Your task to perform on an android device: Search for "bose quietcomfort 35" on bestbuy, select the first entry, and add it to the cart. Image 0: 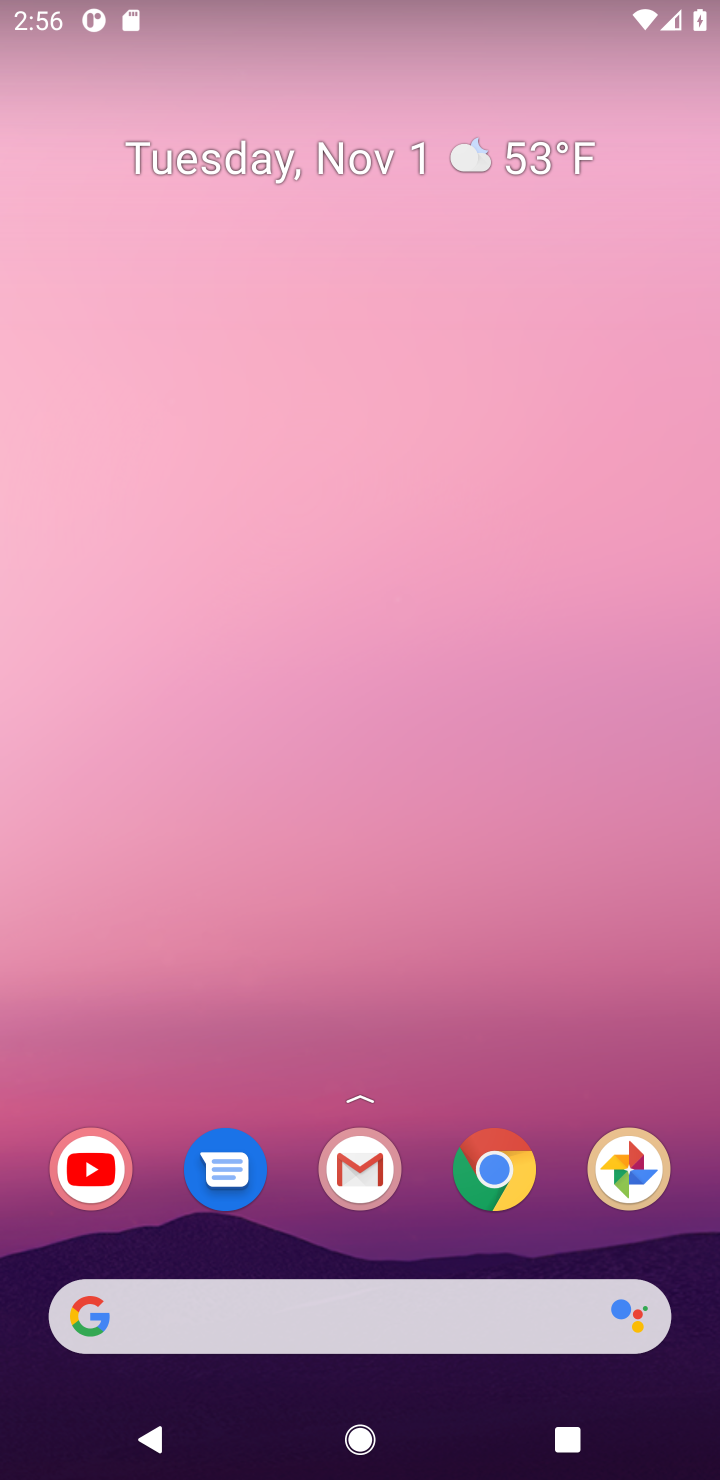
Step 0: press home button
Your task to perform on an android device: Search for "bose quietcomfort 35" on bestbuy, select the first entry, and add it to the cart. Image 1: 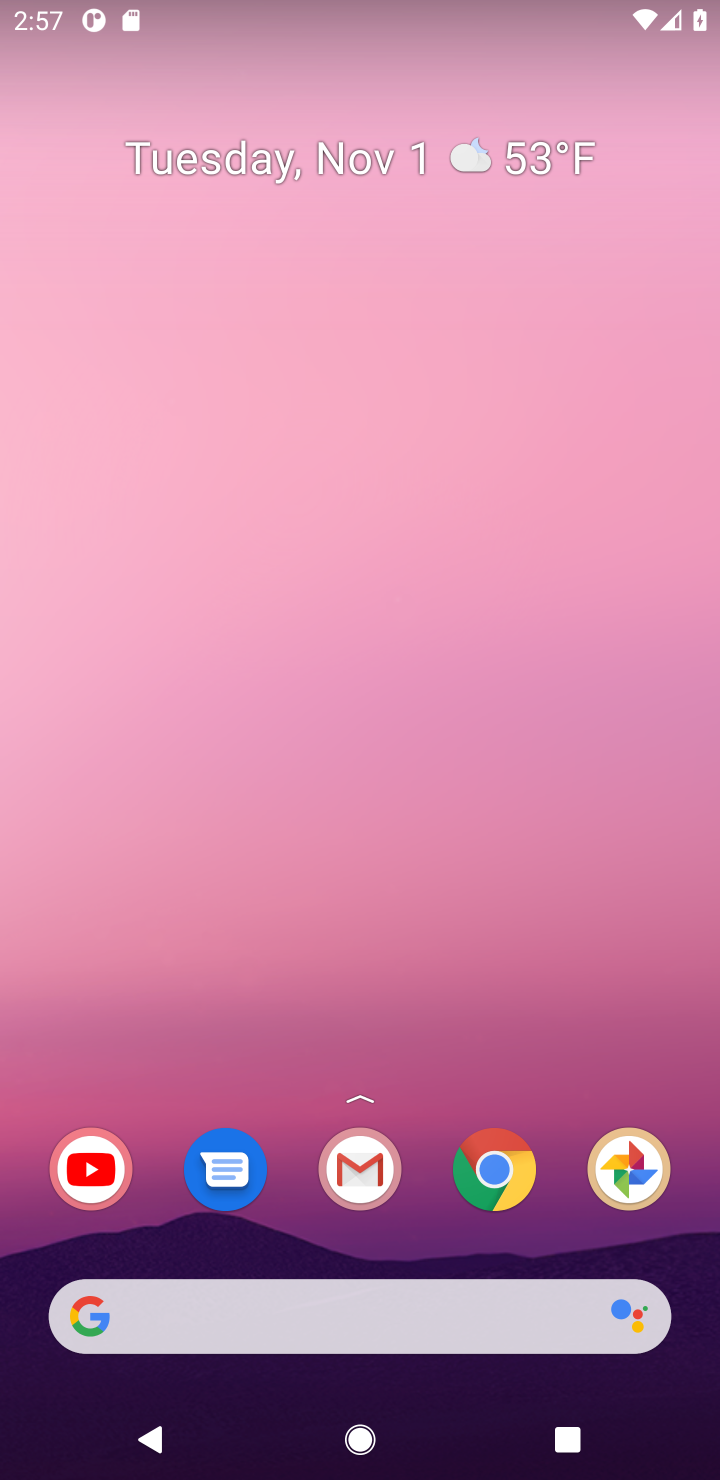
Step 1: drag from (401, 1018) to (519, 68)
Your task to perform on an android device: Search for "bose quietcomfort 35" on bestbuy, select the first entry, and add it to the cart. Image 2: 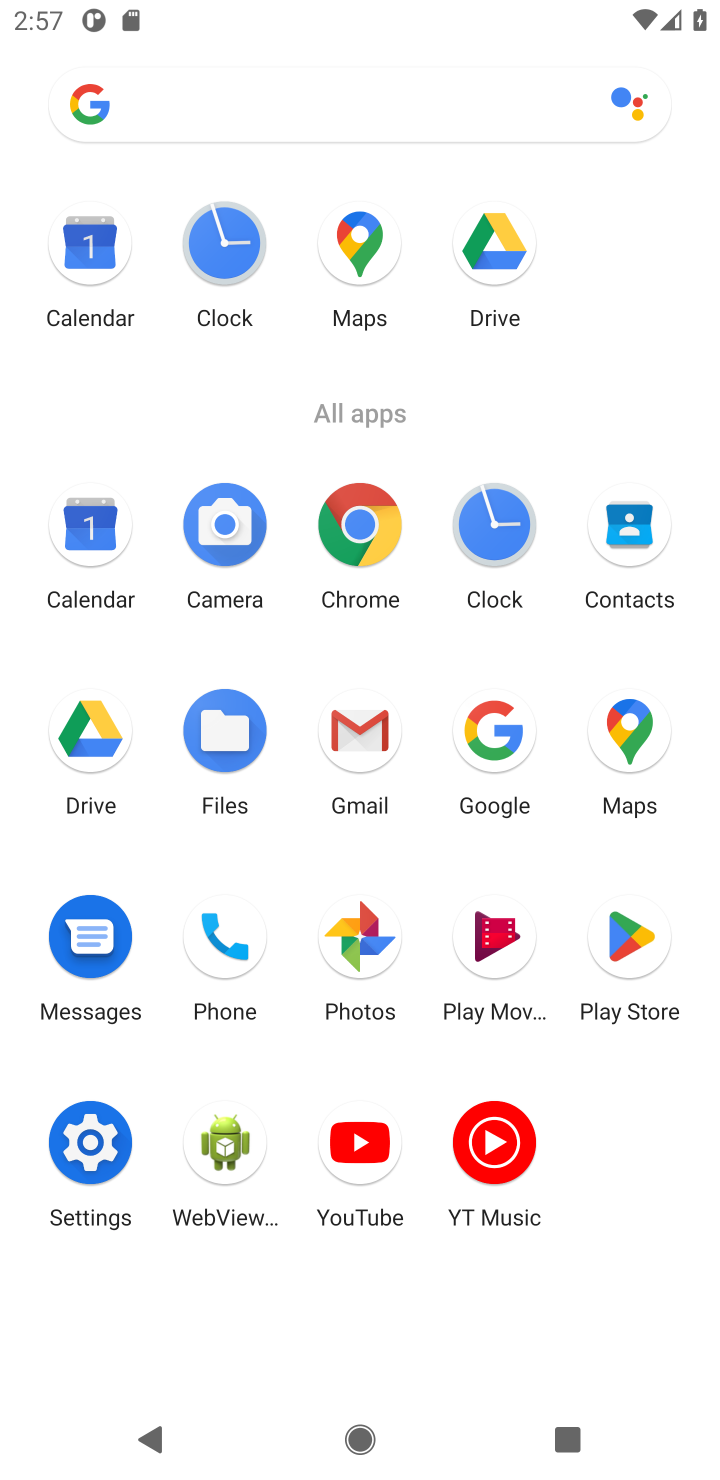
Step 2: click (347, 516)
Your task to perform on an android device: Search for "bose quietcomfort 35" on bestbuy, select the first entry, and add it to the cart. Image 3: 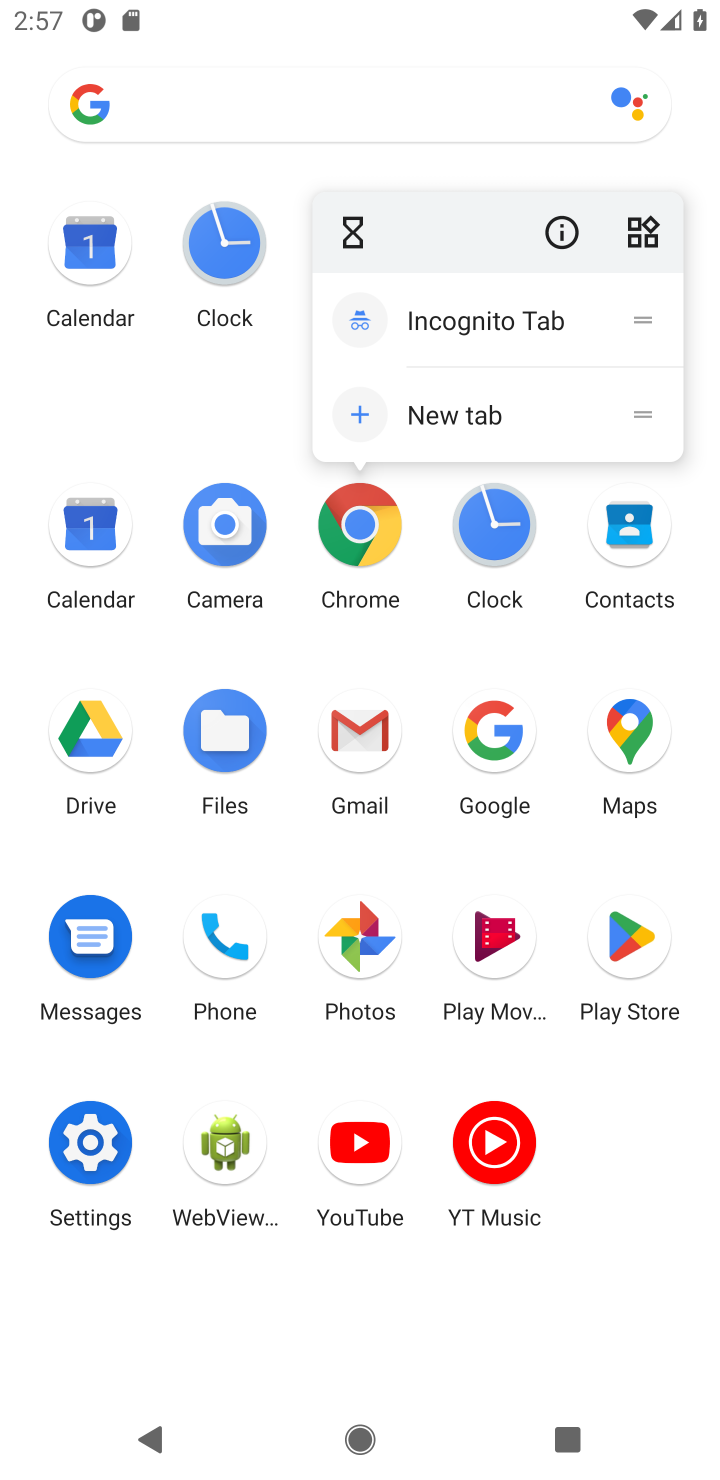
Step 3: click (359, 512)
Your task to perform on an android device: Search for "bose quietcomfort 35" on bestbuy, select the first entry, and add it to the cart. Image 4: 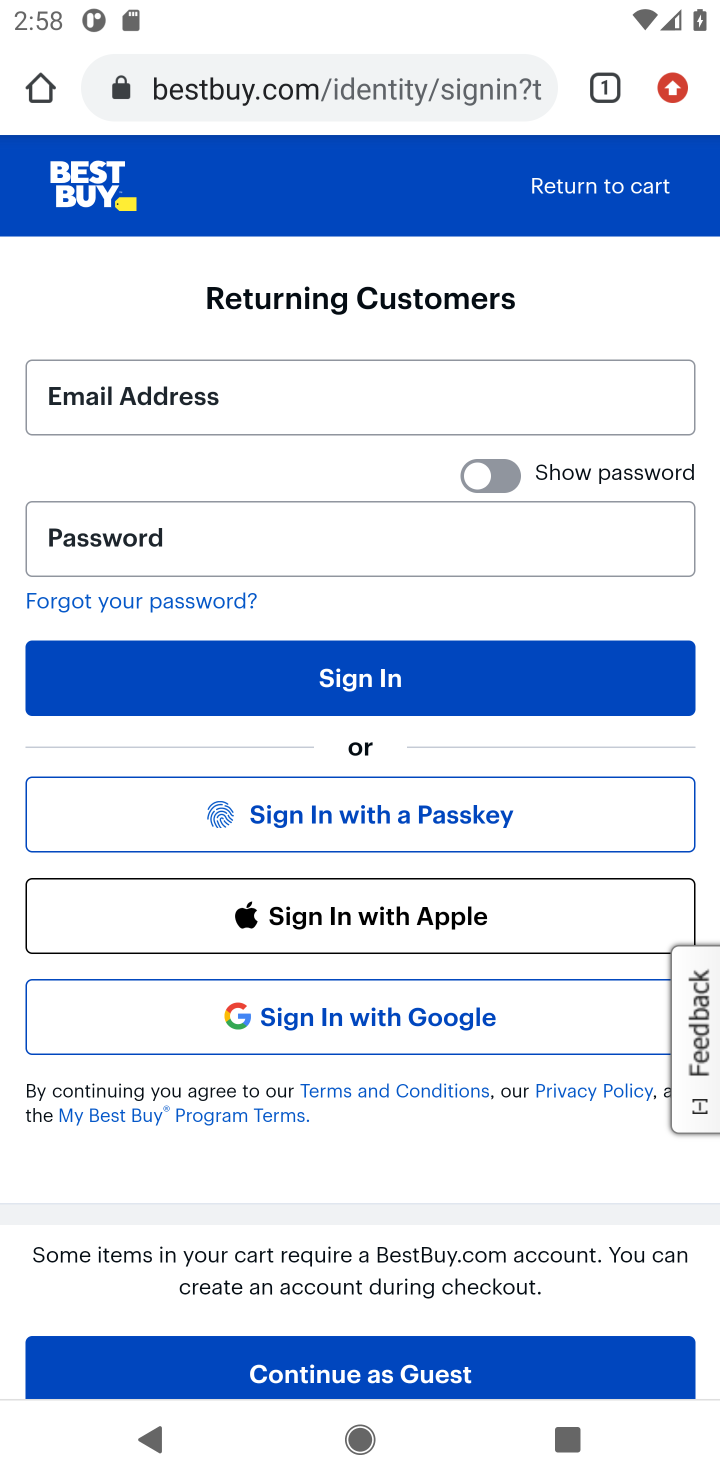
Step 4: task complete